Your task to perform on an android device: Go to Google Image 0: 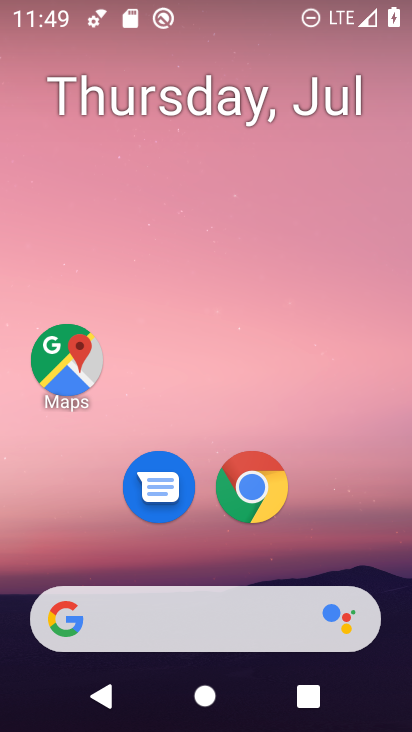
Step 0: drag from (190, 670) to (206, 196)
Your task to perform on an android device: Go to Google Image 1: 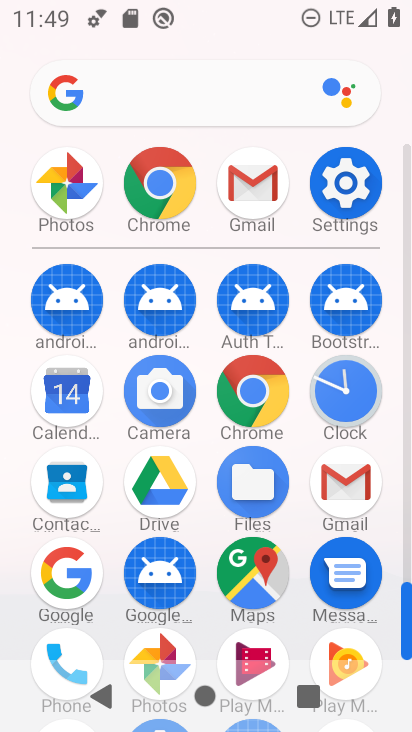
Step 1: click (79, 583)
Your task to perform on an android device: Go to Google Image 2: 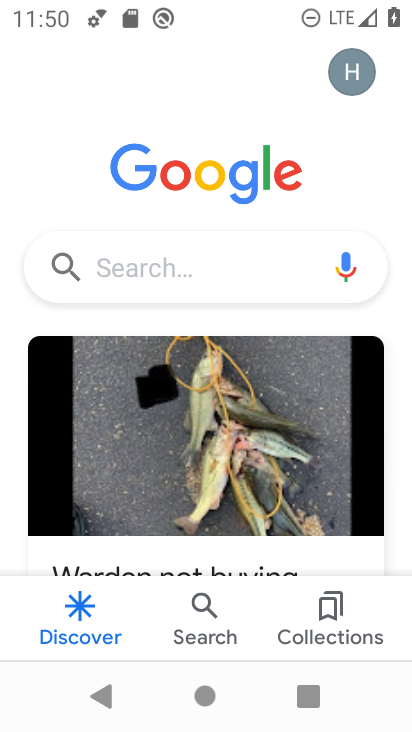
Step 2: task complete